Your task to perform on an android device: Open maps Image 0: 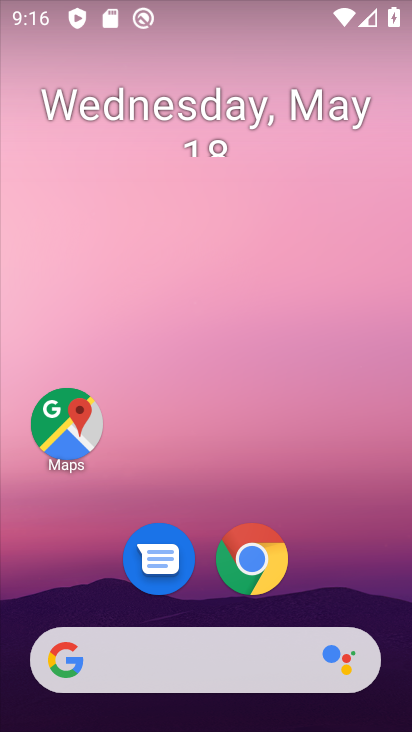
Step 0: drag from (336, 570) to (223, 20)
Your task to perform on an android device: Open maps Image 1: 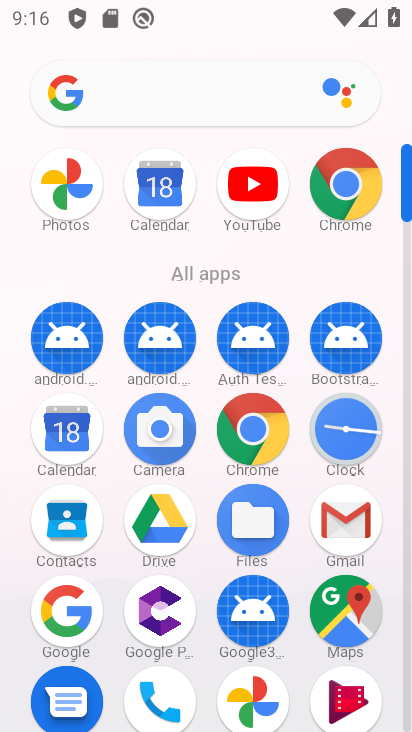
Step 1: click (343, 611)
Your task to perform on an android device: Open maps Image 2: 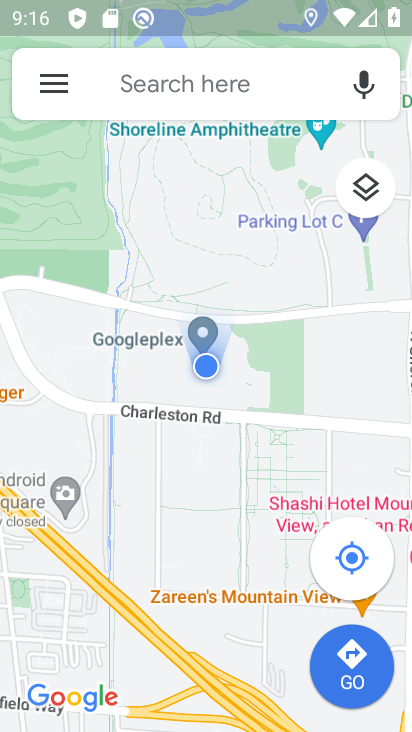
Step 2: task complete